Your task to perform on an android device: toggle pop-ups in chrome Image 0: 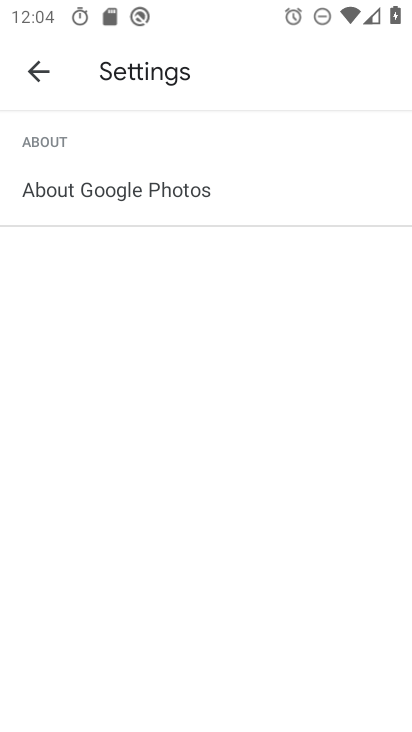
Step 0: press home button
Your task to perform on an android device: toggle pop-ups in chrome Image 1: 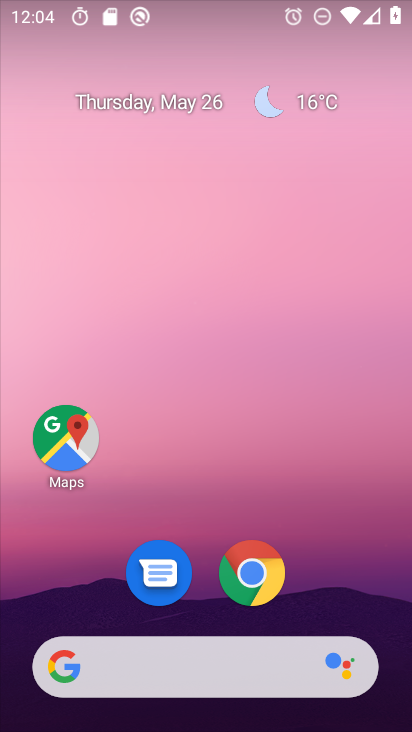
Step 1: click (246, 572)
Your task to perform on an android device: toggle pop-ups in chrome Image 2: 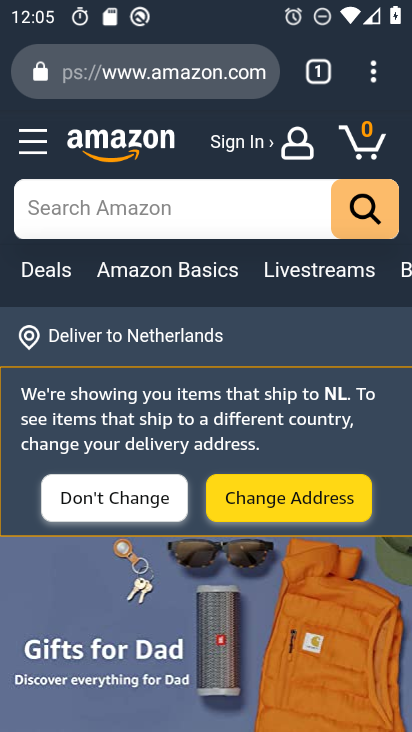
Step 2: click (377, 71)
Your task to perform on an android device: toggle pop-ups in chrome Image 3: 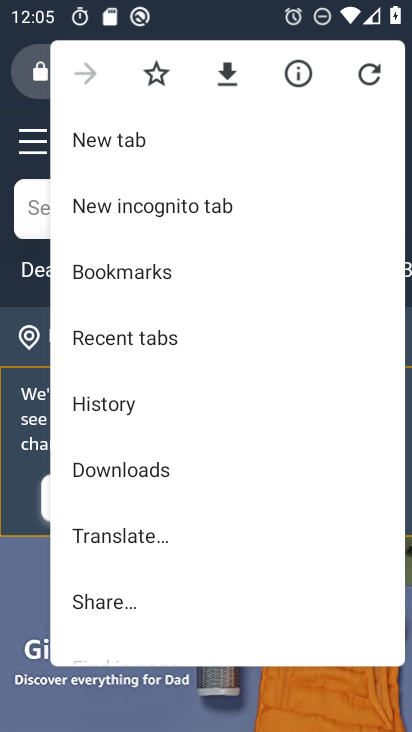
Step 3: drag from (242, 489) to (227, 138)
Your task to perform on an android device: toggle pop-ups in chrome Image 4: 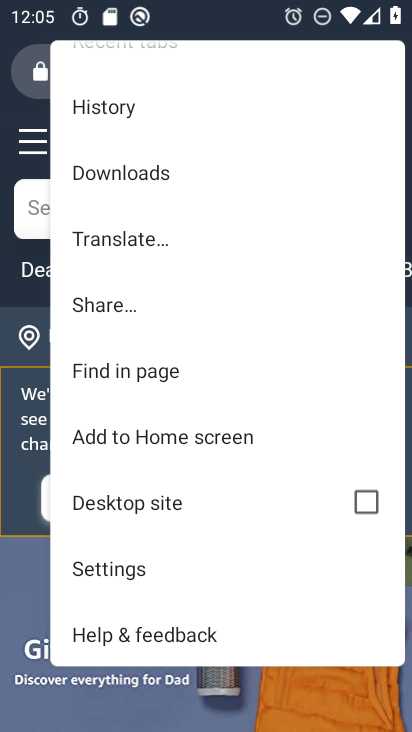
Step 4: click (123, 565)
Your task to perform on an android device: toggle pop-ups in chrome Image 5: 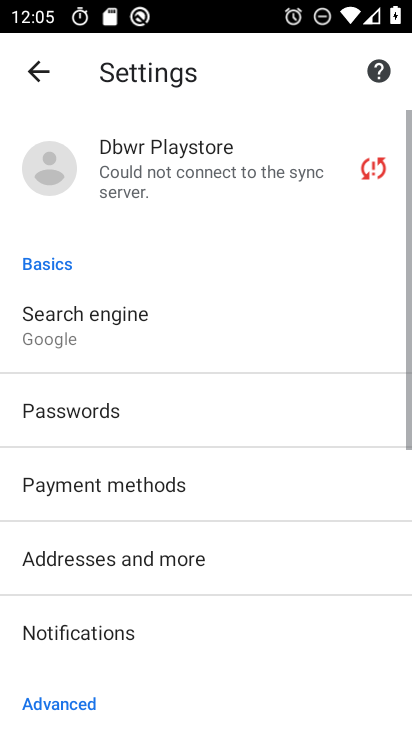
Step 5: drag from (260, 615) to (217, 247)
Your task to perform on an android device: toggle pop-ups in chrome Image 6: 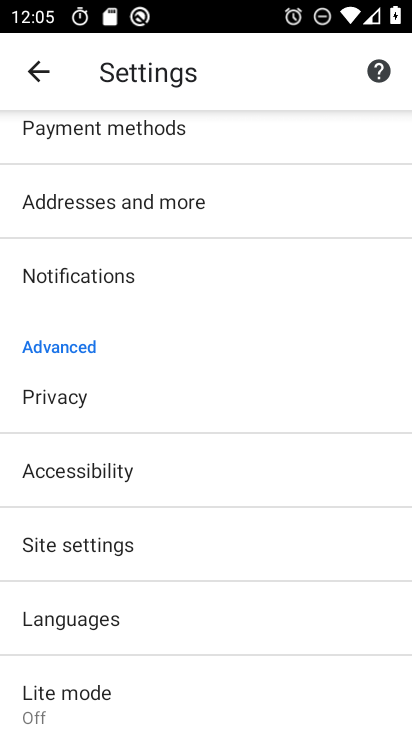
Step 6: click (112, 543)
Your task to perform on an android device: toggle pop-ups in chrome Image 7: 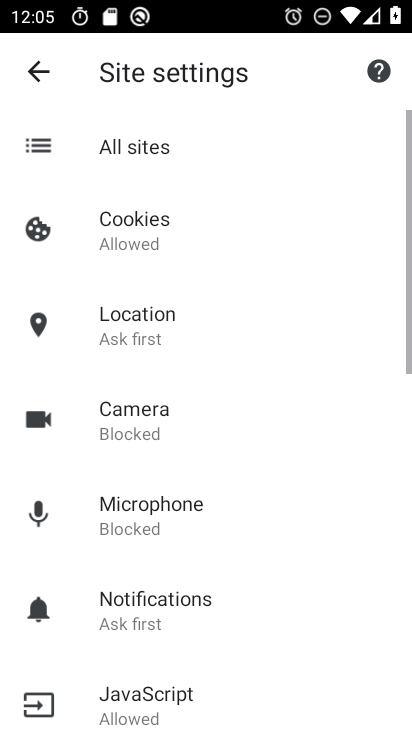
Step 7: drag from (264, 619) to (264, 189)
Your task to perform on an android device: toggle pop-ups in chrome Image 8: 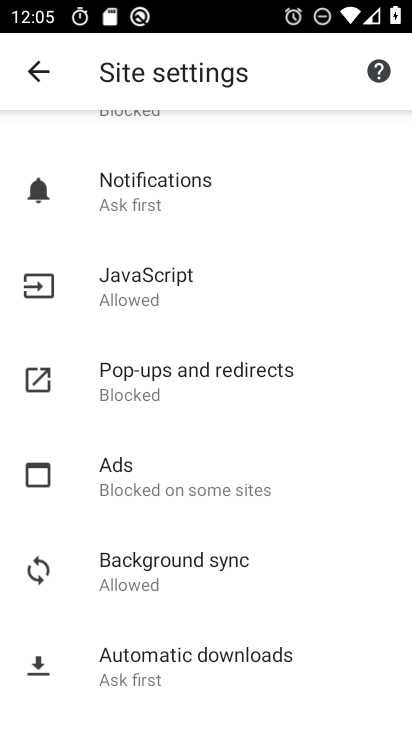
Step 8: click (161, 376)
Your task to perform on an android device: toggle pop-ups in chrome Image 9: 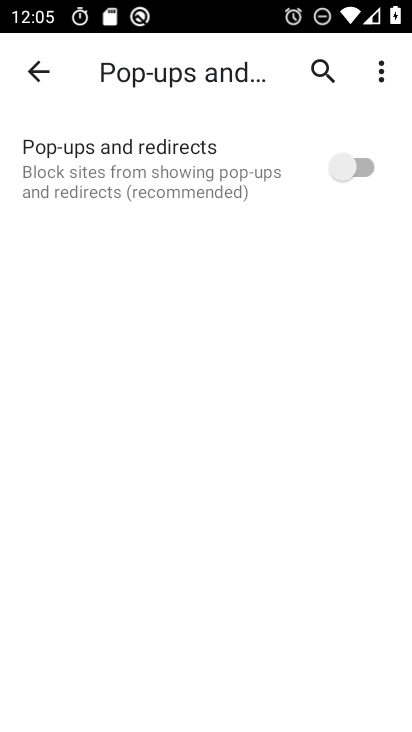
Step 9: click (342, 180)
Your task to perform on an android device: toggle pop-ups in chrome Image 10: 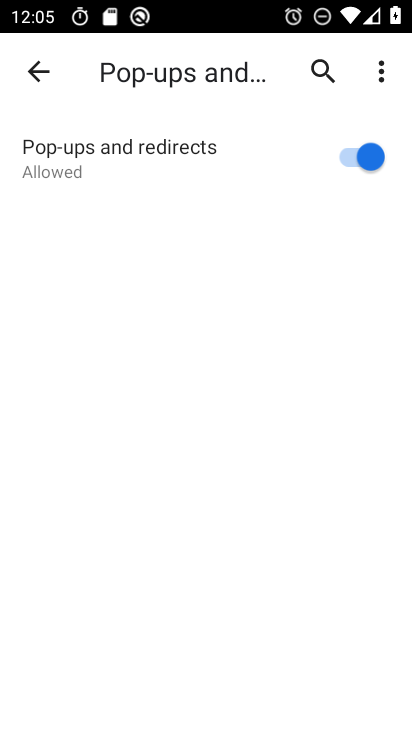
Step 10: task complete